Your task to perform on an android device: check storage Image 0: 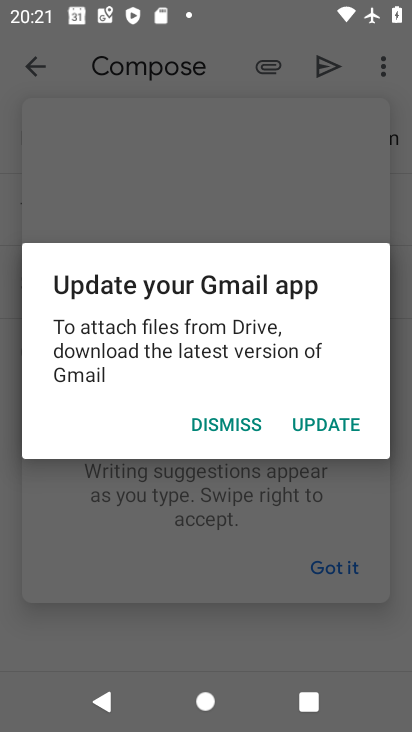
Step 0: press home button
Your task to perform on an android device: check storage Image 1: 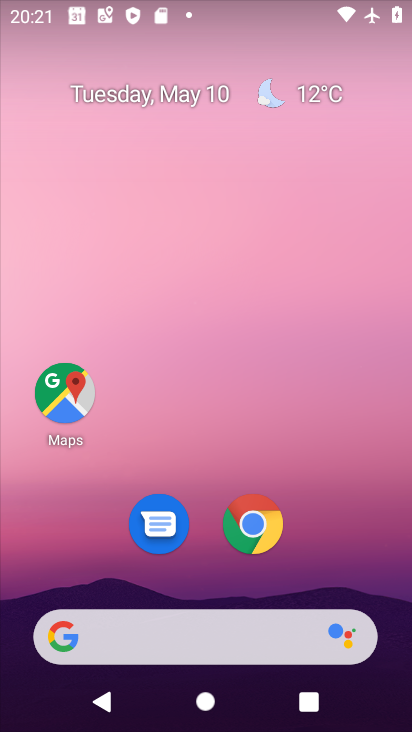
Step 1: drag from (309, 390) to (253, 56)
Your task to perform on an android device: check storage Image 2: 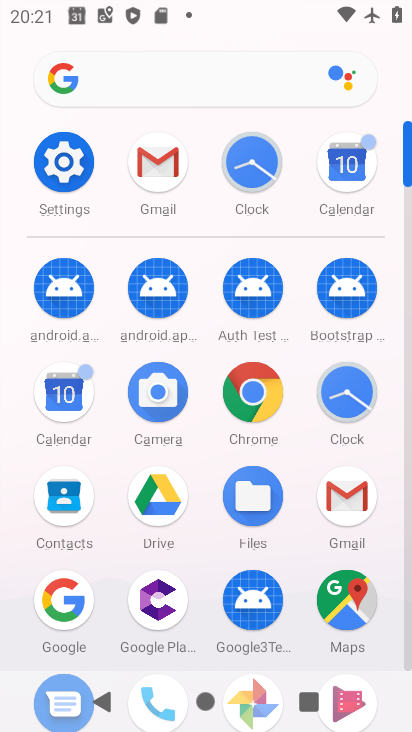
Step 2: click (81, 153)
Your task to perform on an android device: check storage Image 3: 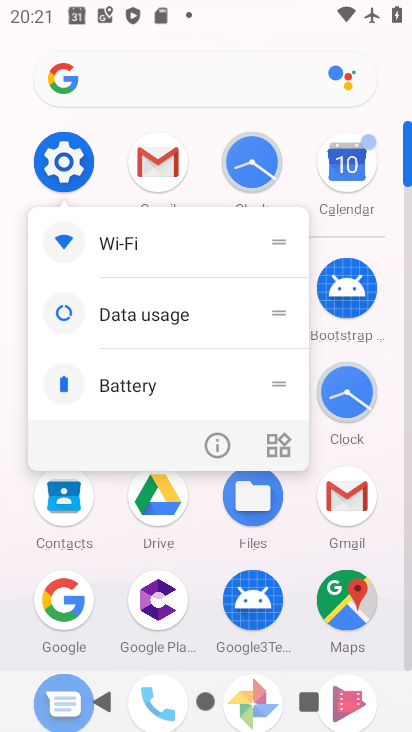
Step 3: click (63, 163)
Your task to perform on an android device: check storage Image 4: 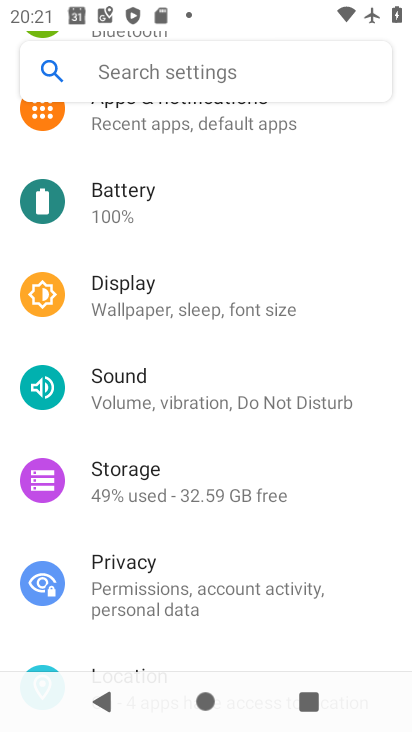
Step 4: click (264, 481)
Your task to perform on an android device: check storage Image 5: 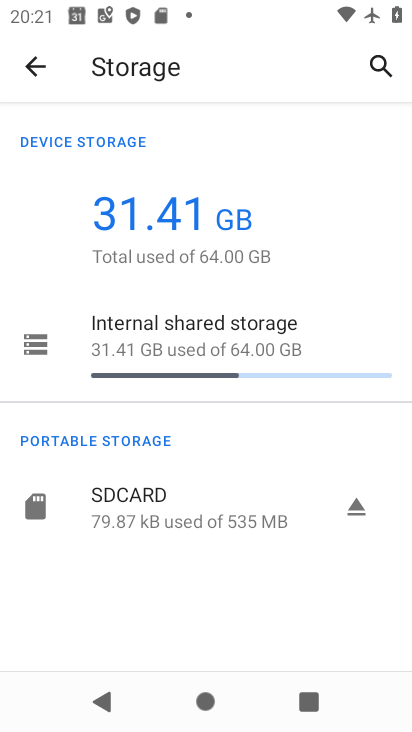
Step 5: task complete